Your task to perform on an android device: Open accessibility settings Image 0: 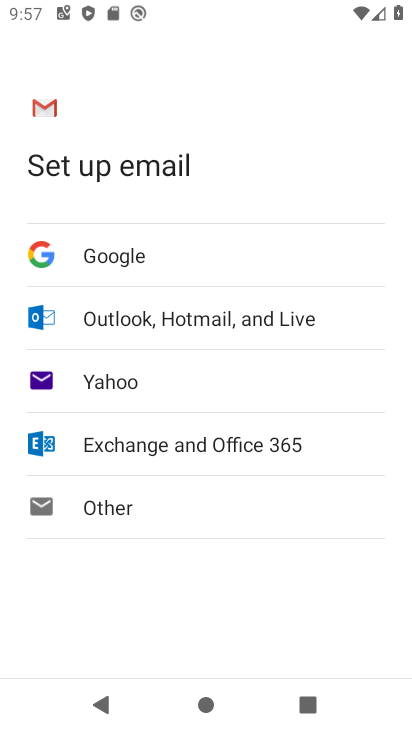
Step 0: press home button
Your task to perform on an android device: Open accessibility settings Image 1: 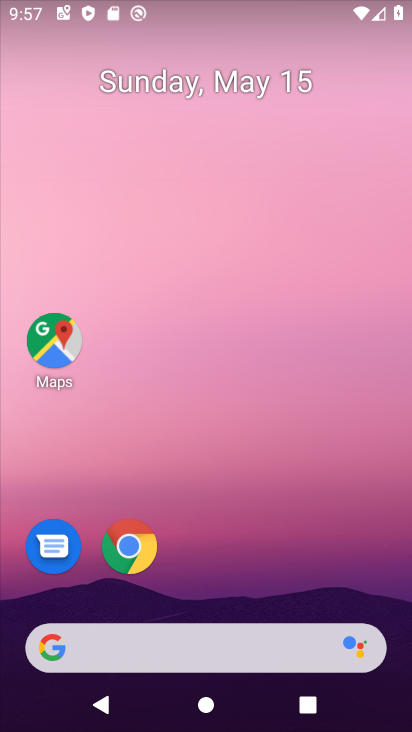
Step 1: drag from (295, 596) to (130, 17)
Your task to perform on an android device: Open accessibility settings Image 2: 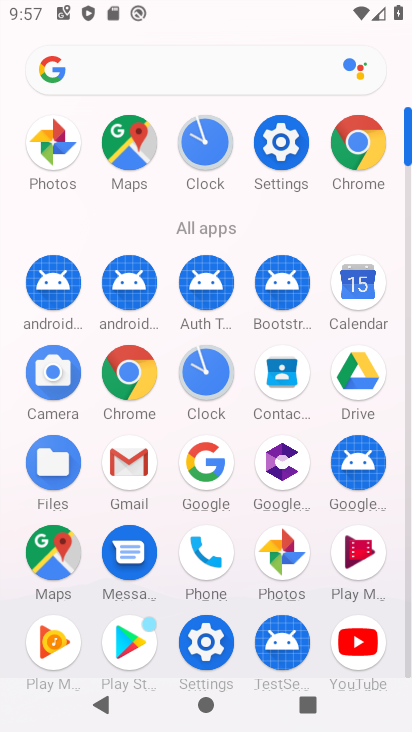
Step 2: click (279, 128)
Your task to perform on an android device: Open accessibility settings Image 3: 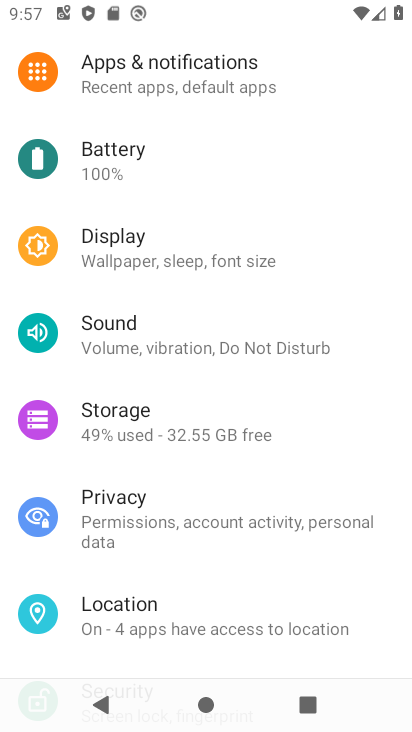
Step 3: drag from (212, 562) to (214, 53)
Your task to perform on an android device: Open accessibility settings Image 4: 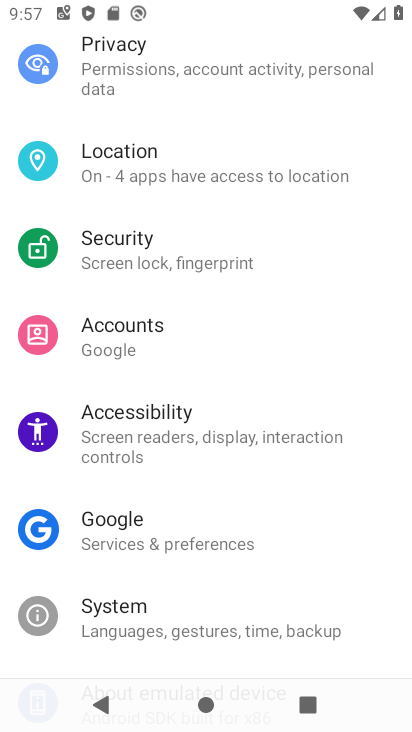
Step 4: click (165, 423)
Your task to perform on an android device: Open accessibility settings Image 5: 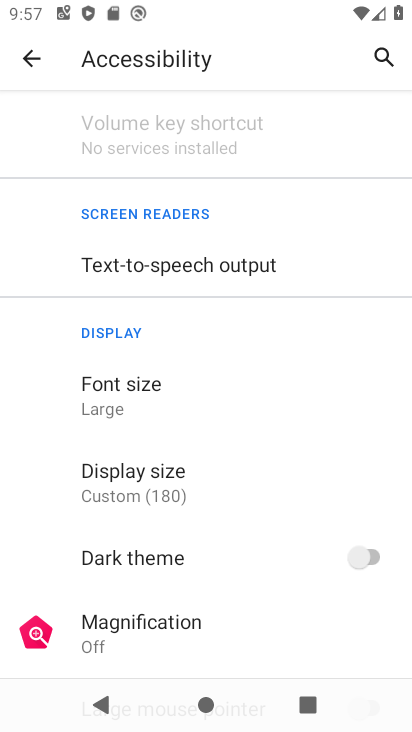
Step 5: task complete